Your task to perform on an android device: check google app version Image 0: 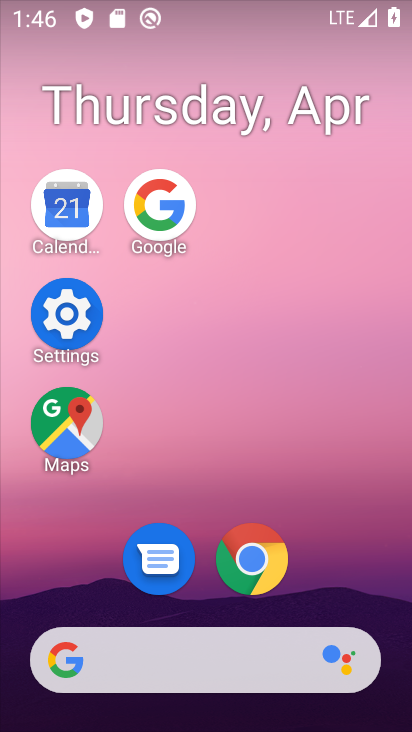
Step 0: click (148, 207)
Your task to perform on an android device: check google app version Image 1: 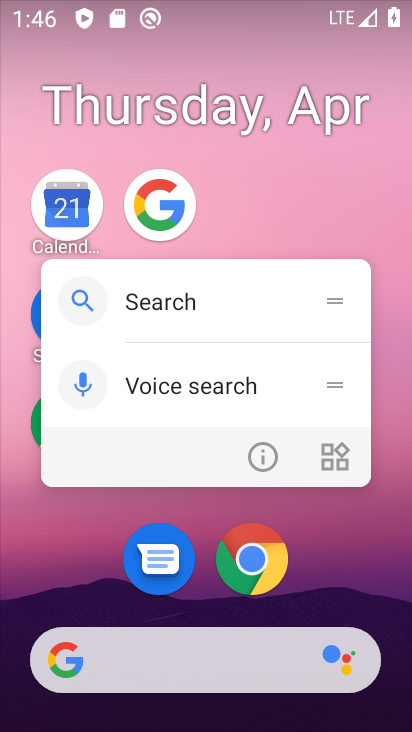
Step 1: click (267, 453)
Your task to perform on an android device: check google app version Image 2: 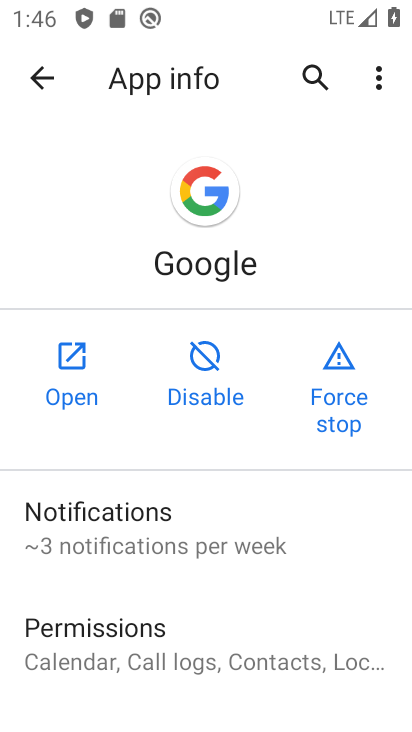
Step 2: drag from (263, 510) to (308, 52)
Your task to perform on an android device: check google app version Image 3: 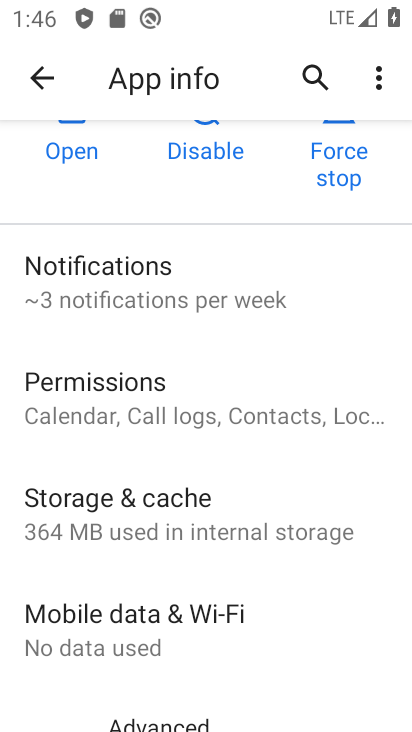
Step 3: drag from (266, 459) to (303, 28)
Your task to perform on an android device: check google app version Image 4: 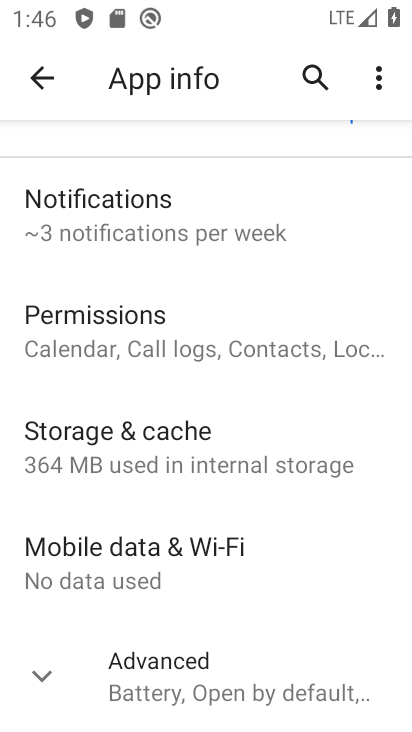
Step 4: click (227, 693)
Your task to perform on an android device: check google app version Image 5: 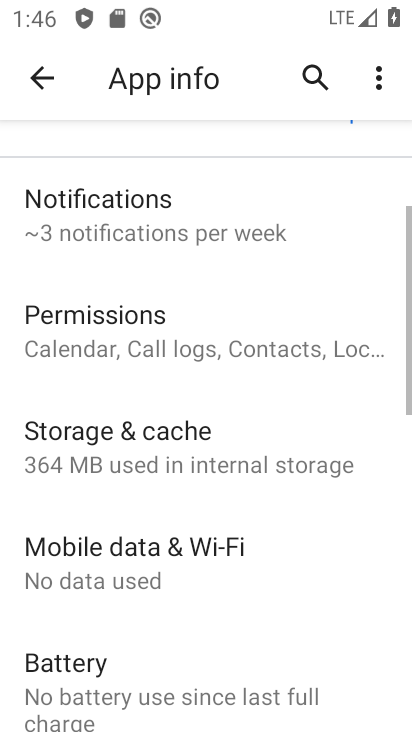
Step 5: task complete